Your task to perform on an android device: Open location settings Image 0: 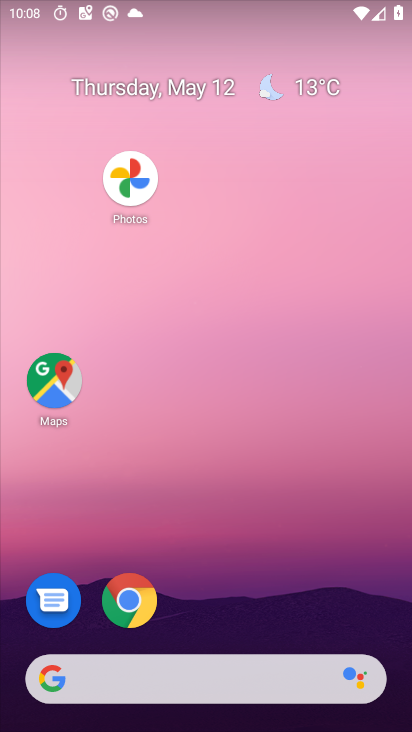
Step 0: drag from (288, 613) to (157, 104)
Your task to perform on an android device: Open location settings Image 1: 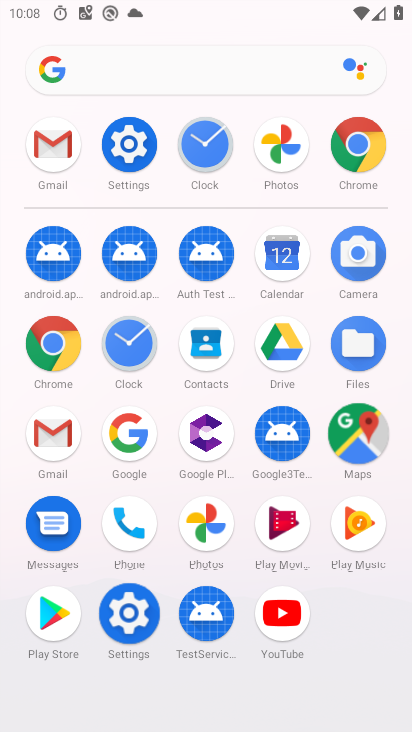
Step 1: click (124, 146)
Your task to perform on an android device: Open location settings Image 2: 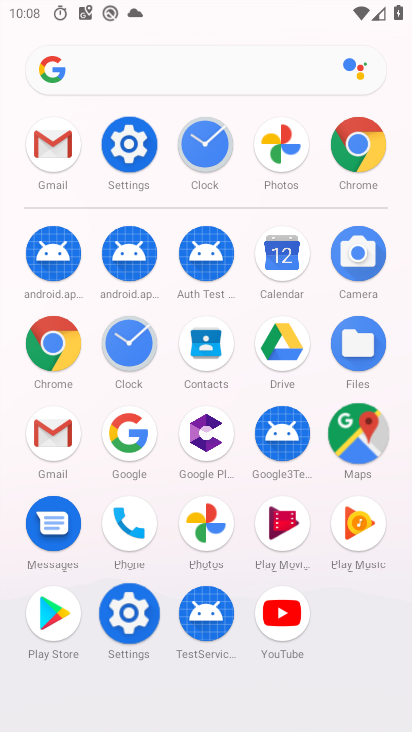
Step 2: click (125, 145)
Your task to perform on an android device: Open location settings Image 3: 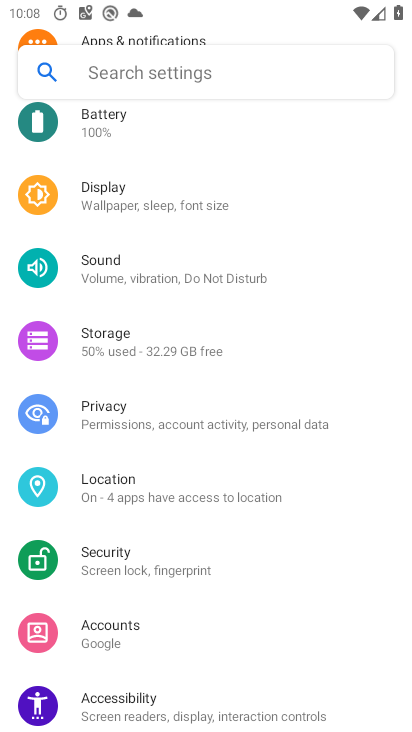
Step 3: click (125, 145)
Your task to perform on an android device: Open location settings Image 4: 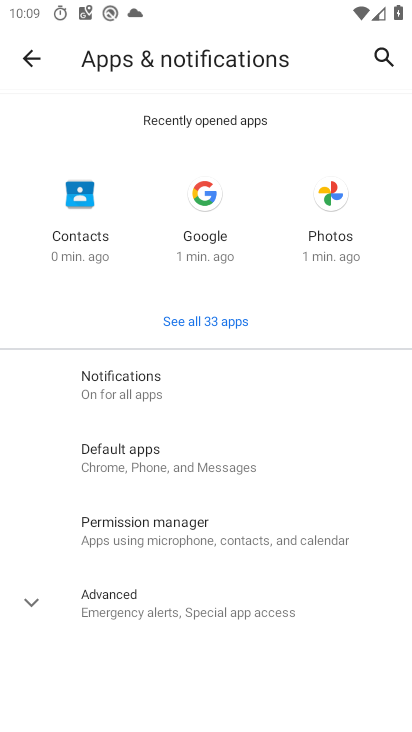
Step 4: click (27, 59)
Your task to perform on an android device: Open location settings Image 5: 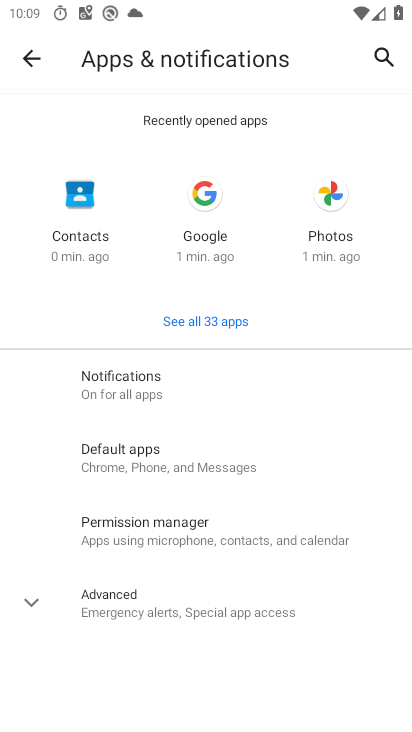
Step 5: click (27, 59)
Your task to perform on an android device: Open location settings Image 6: 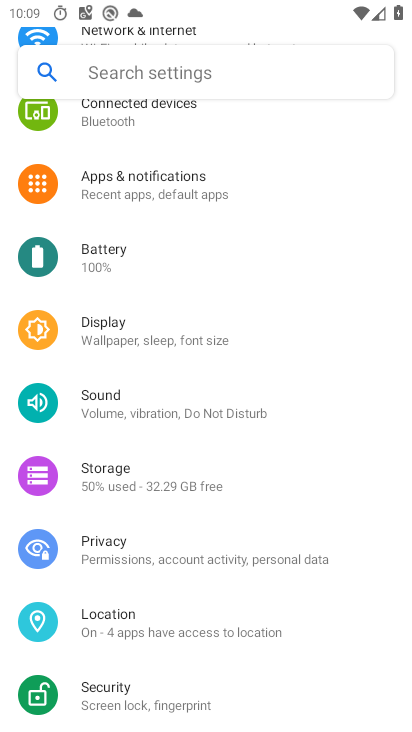
Step 6: drag from (162, 508) to (181, 190)
Your task to perform on an android device: Open location settings Image 7: 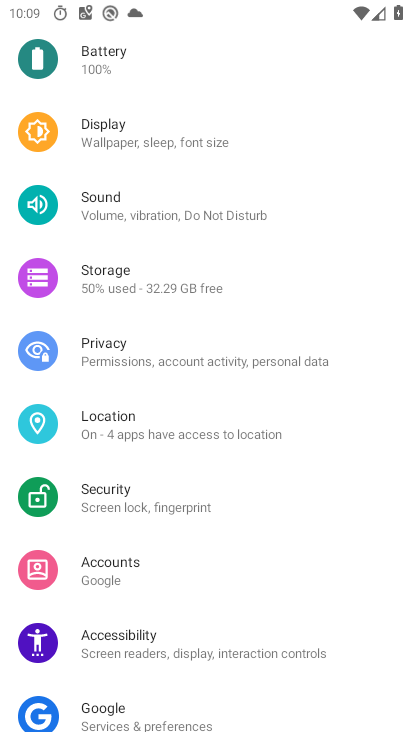
Step 7: click (121, 422)
Your task to perform on an android device: Open location settings Image 8: 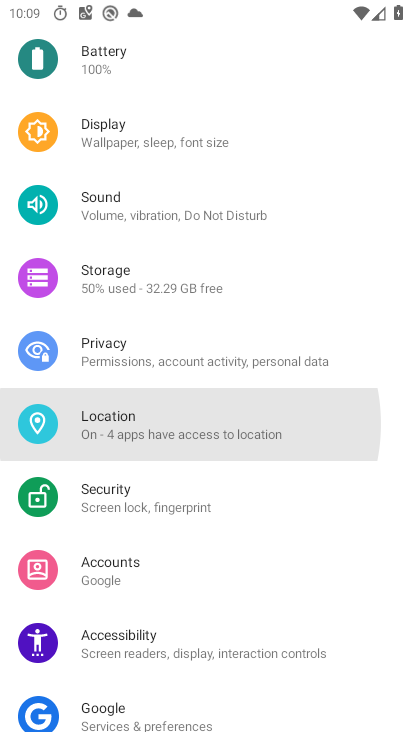
Step 8: click (122, 428)
Your task to perform on an android device: Open location settings Image 9: 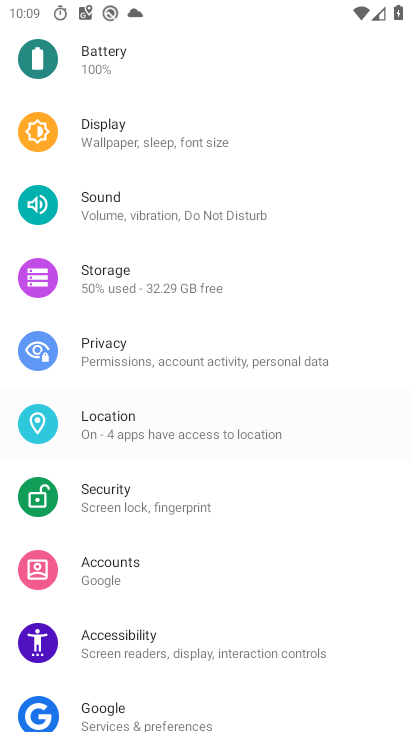
Step 9: click (123, 446)
Your task to perform on an android device: Open location settings Image 10: 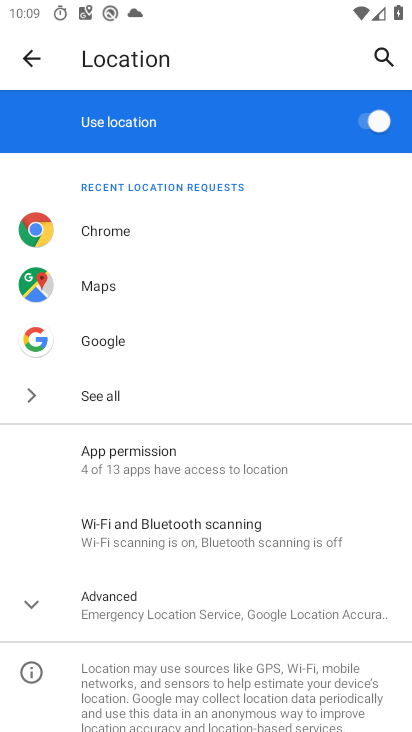
Step 10: task complete